Your task to perform on an android device: turn off sleep mode Image 0: 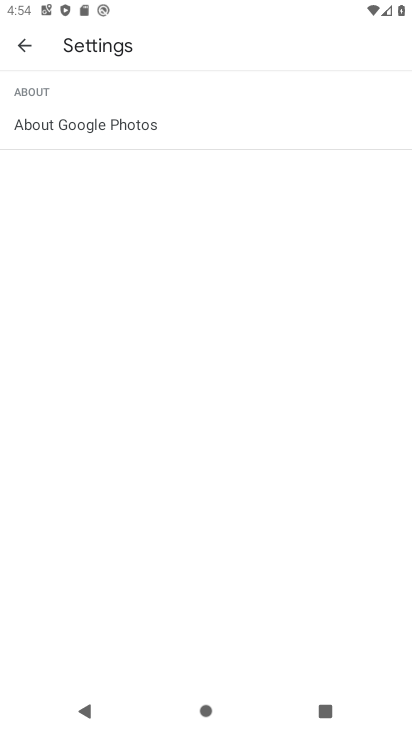
Step 0: press back button
Your task to perform on an android device: turn off sleep mode Image 1: 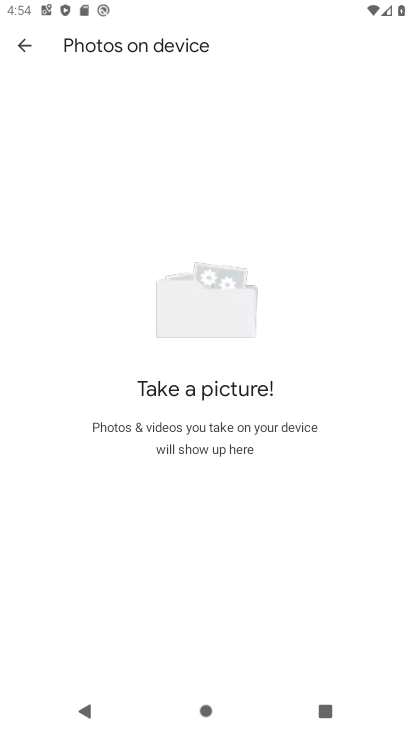
Step 1: click (28, 37)
Your task to perform on an android device: turn off sleep mode Image 2: 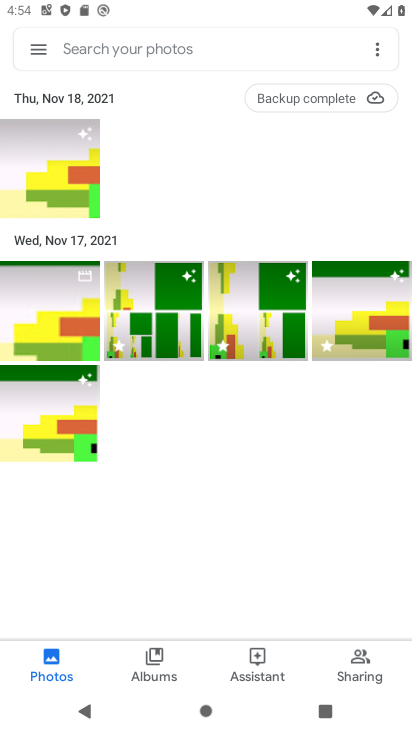
Step 2: press back button
Your task to perform on an android device: turn off sleep mode Image 3: 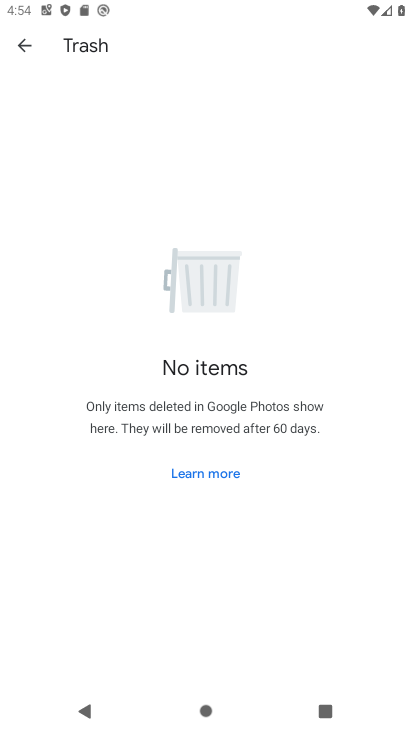
Step 3: press back button
Your task to perform on an android device: turn off sleep mode Image 4: 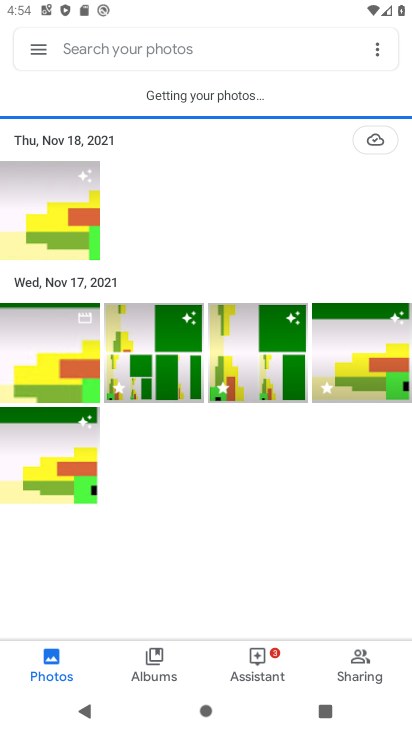
Step 4: press back button
Your task to perform on an android device: turn off sleep mode Image 5: 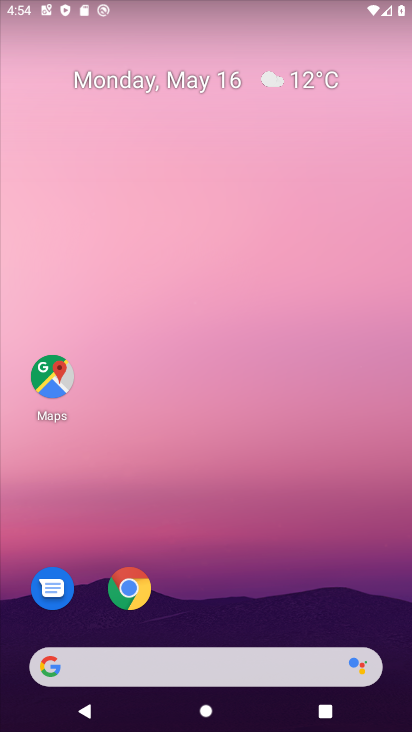
Step 5: drag from (265, 540) to (304, 96)
Your task to perform on an android device: turn off sleep mode Image 6: 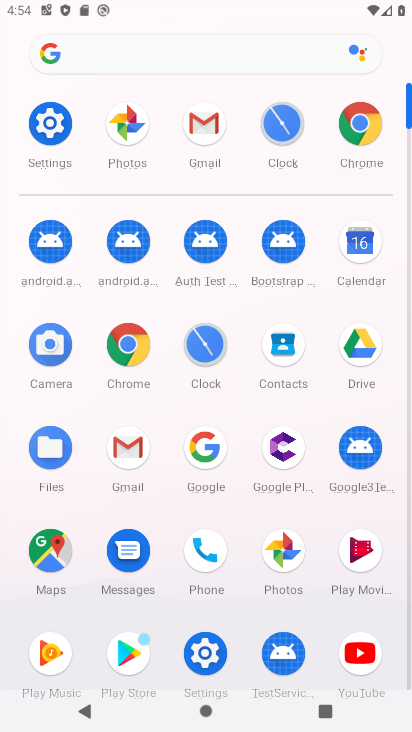
Step 6: click (40, 125)
Your task to perform on an android device: turn off sleep mode Image 7: 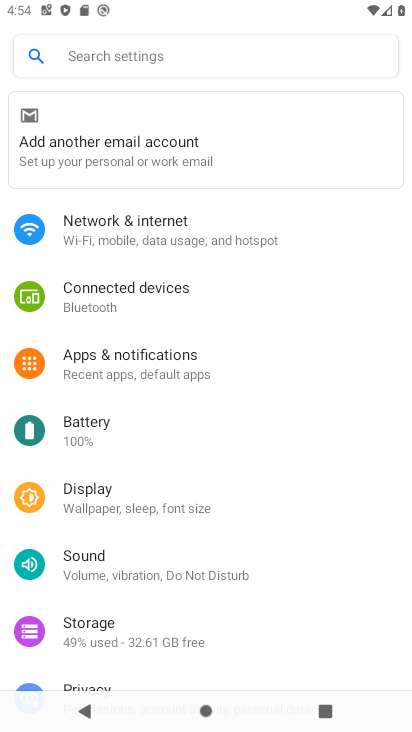
Step 7: click (94, 59)
Your task to perform on an android device: turn off sleep mode Image 8: 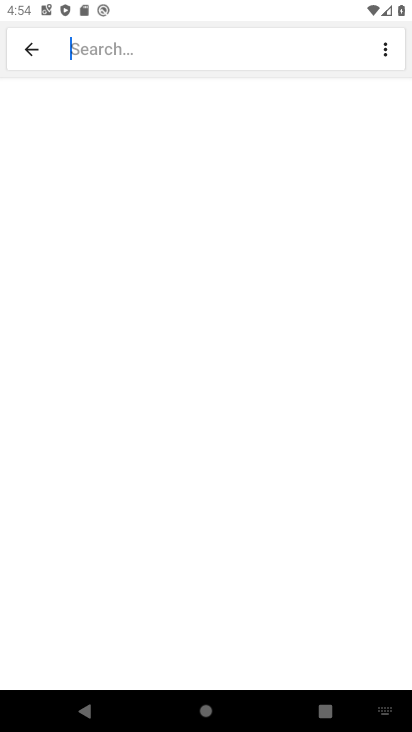
Step 8: type "sleep mode"
Your task to perform on an android device: turn off sleep mode Image 9: 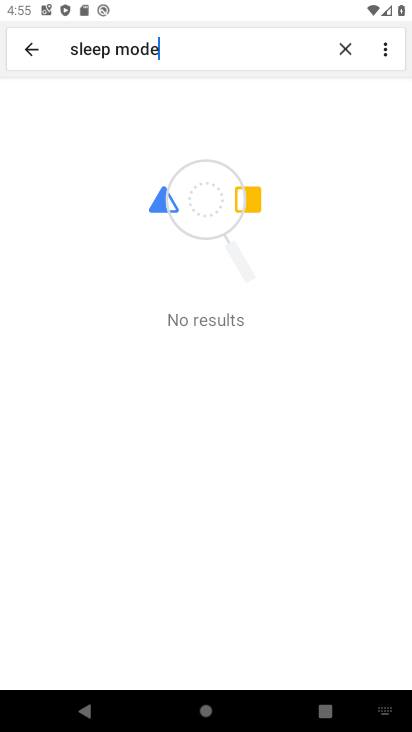
Step 9: task complete